Your task to perform on an android device: Open Google Chrome and click the shortcut for Amazon.com Image 0: 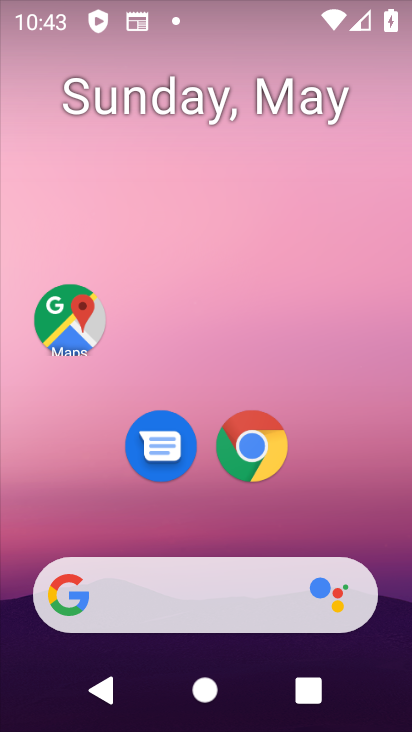
Step 0: click (251, 474)
Your task to perform on an android device: Open Google Chrome and click the shortcut for Amazon.com Image 1: 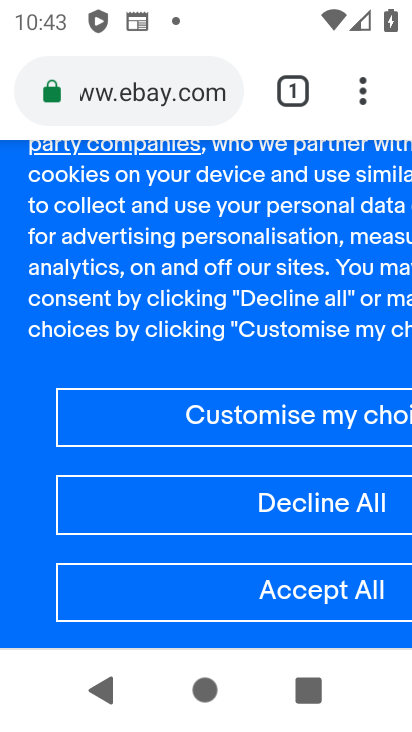
Step 1: drag from (378, 101) to (355, 153)
Your task to perform on an android device: Open Google Chrome and click the shortcut for Amazon.com Image 2: 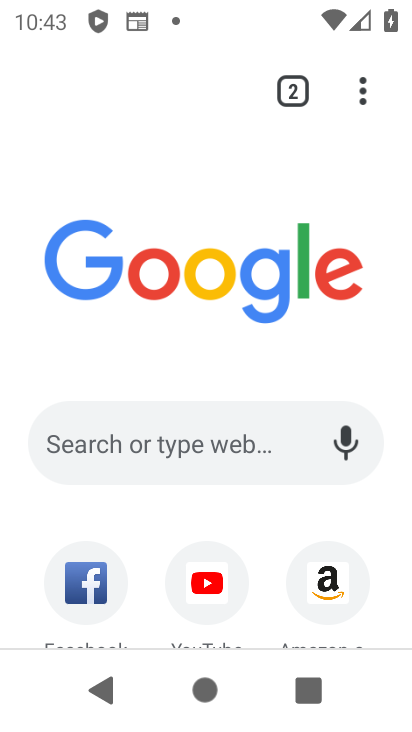
Step 2: click (313, 588)
Your task to perform on an android device: Open Google Chrome and click the shortcut for Amazon.com Image 3: 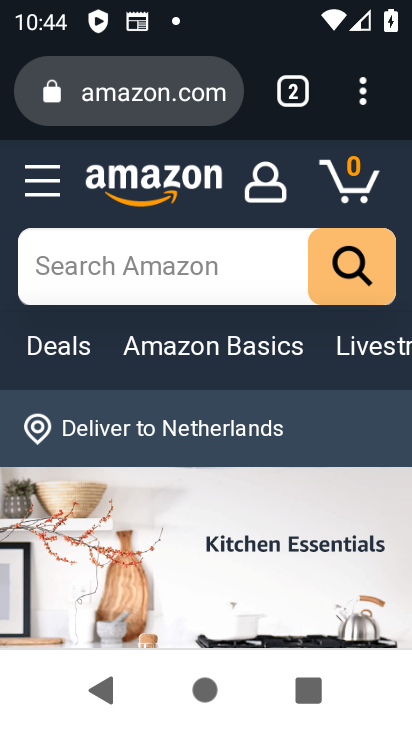
Step 3: task complete